Your task to perform on an android device: Go to calendar. Show me events next week Image 0: 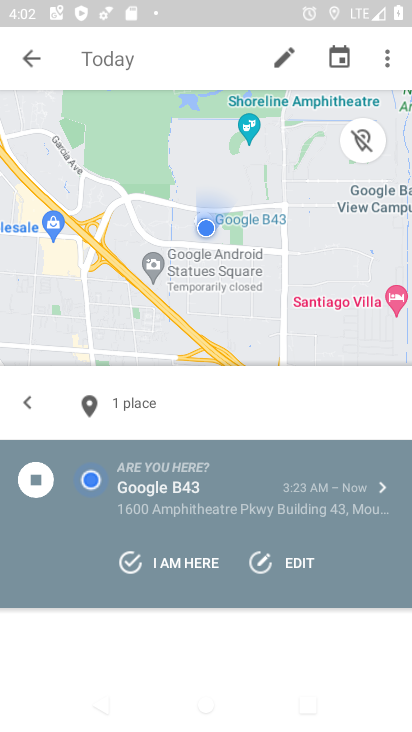
Step 0: press home button
Your task to perform on an android device: Go to calendar. Show me events next week Image 1: 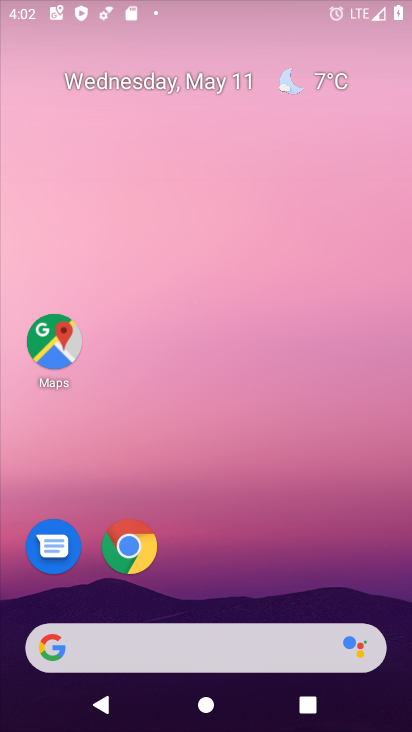
Step 1: drag from (281, 627) to (258, 55)
Your task to perform on an android device: Go to calendar. Show me events next week Image 2: 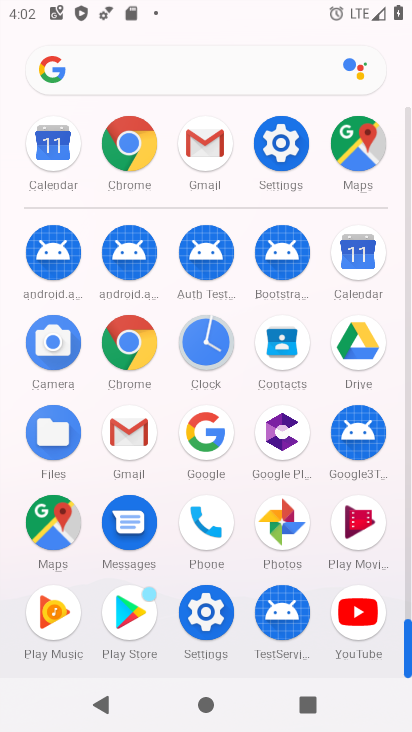
Step 2: click (358, 268)
Your task to perform on an android device: Go to calendar. Show me events next week Image 3: 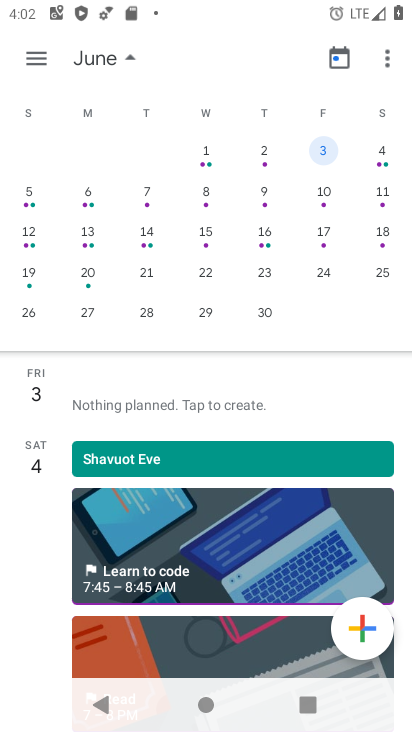
Step 3: drag from (165, 196) to (380, 218)
Your task to perform on an android device: Go to calendar. Show me events next week Image 4: 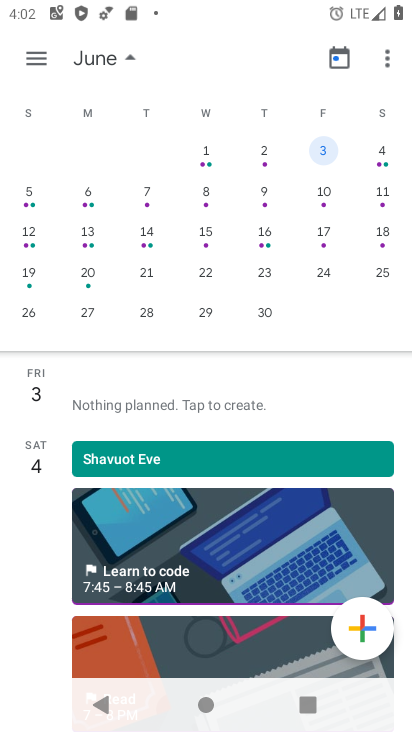
Step 4: drag from (21, 254) to (411, 254)
Your task to perform on an android device: Go to calendar. Show me events next week Image 5: 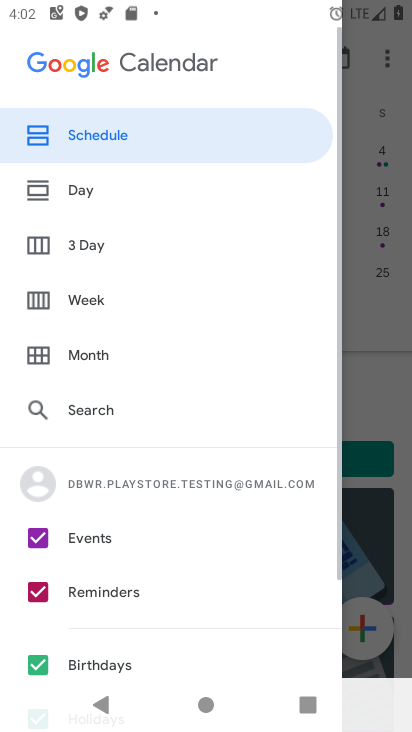
Step 5: drag from (373, 253) to (3, 342)
Your task to perform on an android device: Go to calendar. Show me events next week Image 6: 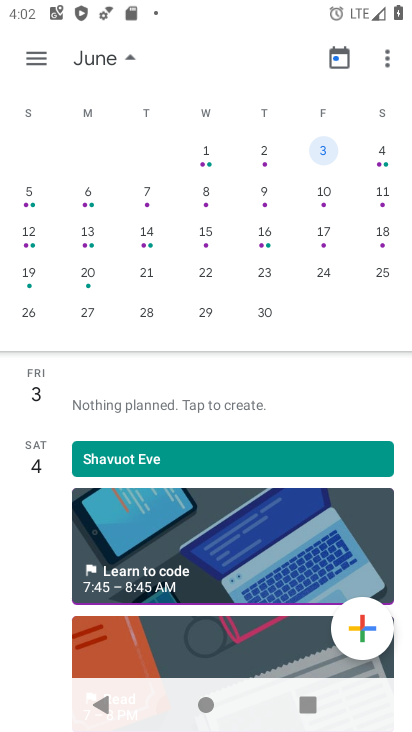
Step 6: drag from (160, 210) to (411, 282)
Your task to perform on an android device: Go to calendar. Show me events next week Image 7: 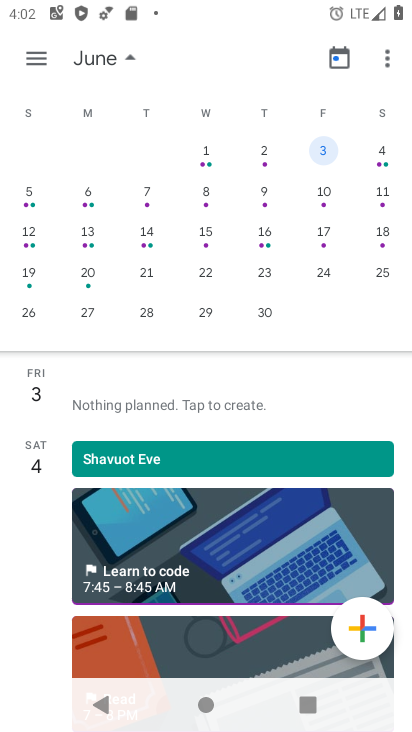
Step 7: drag from (115, 225) to (388, 254)
Your task to perform on an android device: Go to calendar. Show me events next week Image 8: 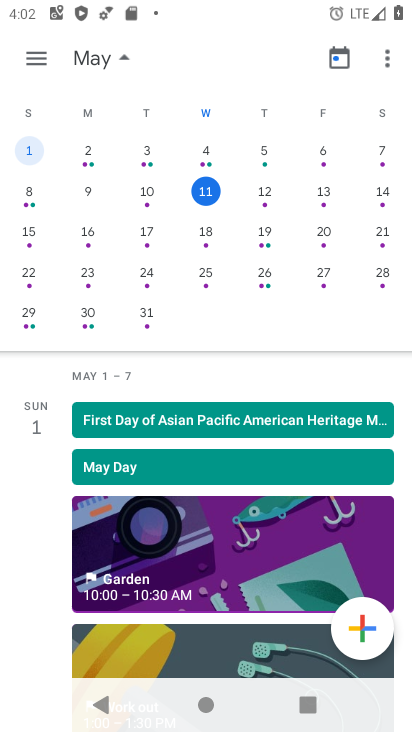
Step 8: click (211, 230)
Your task to perform on an android device: Go to calendar. Show me events next week Image 9: 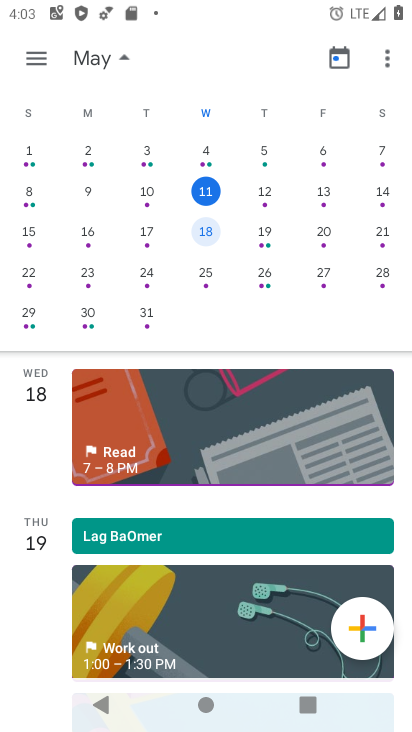
Step 9: click (30, 61)
Your task to perform on an android device: Go to calendar. Show me events next week Image 10: 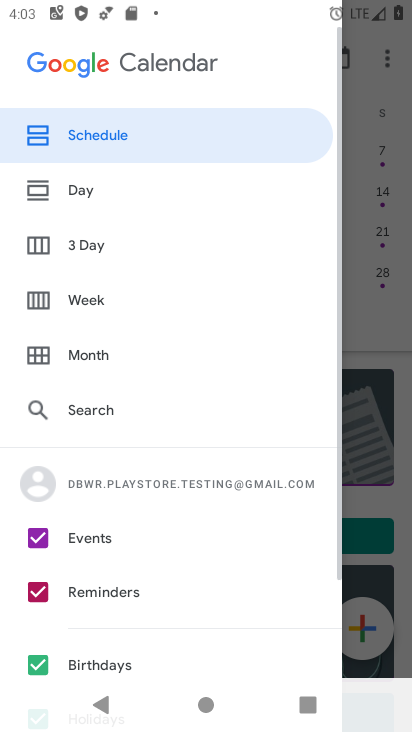
Step 10: click (101, 299)
Your task to perform on an android device: Go to calendar. Show me events next week Image 11: 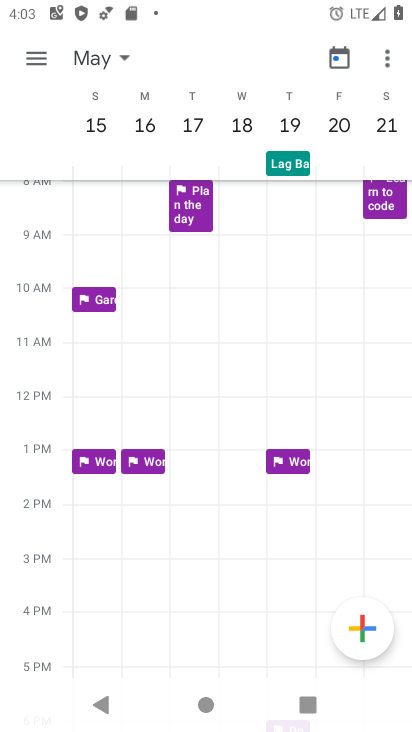
Step 11: task complete